Your task to perform on an android device: add a label to a message in the gmail app Image 0: 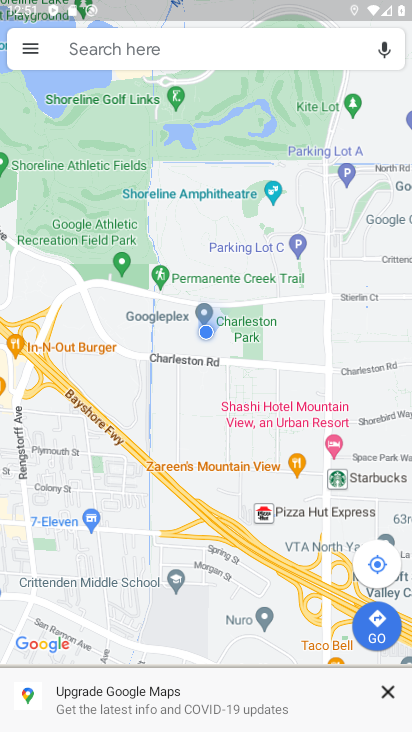
Step 0: press home button
Your task to perform on an android device: add a label to a message in the gmail app Image 1: 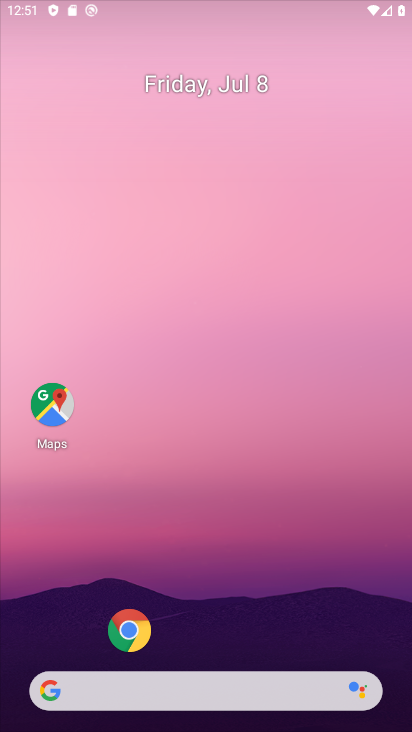
Step 1: drag from (254, 705) to (277, 181)
Your task to perform on an android device: add a label to a message in the gmail app Image 2: 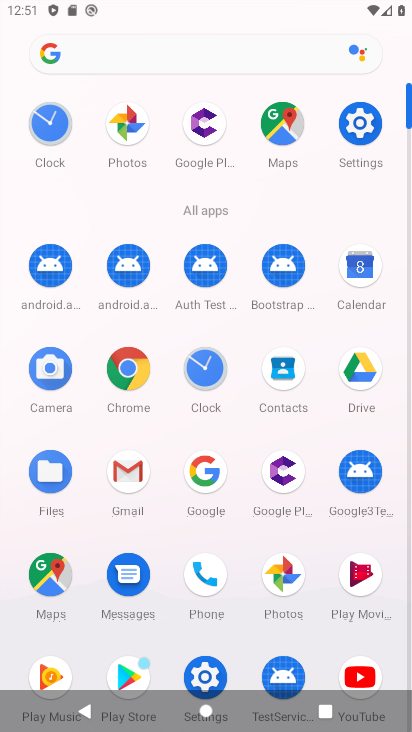
Step 2: click (163, 478)
Your task to perform on an android device: add a label to a message in the gmail app Image 3: 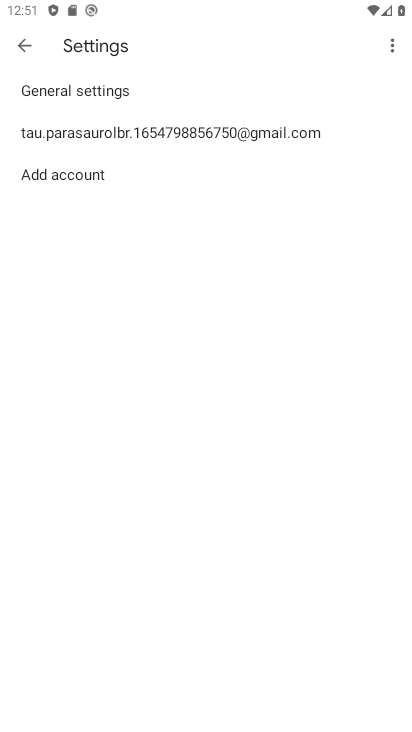
Step 3: task complete